Your task to perform on an android device: set default search engine in the chrome app Image 0: 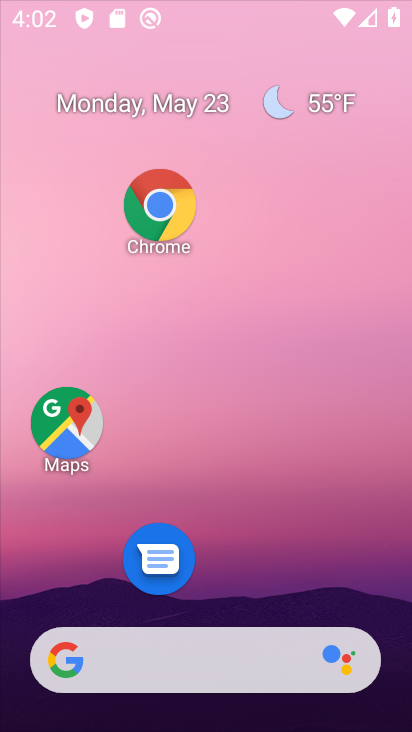
Step 0: click (111, 77)
Your task to perform on an android device: set default search engine in the chrome app Image 1: 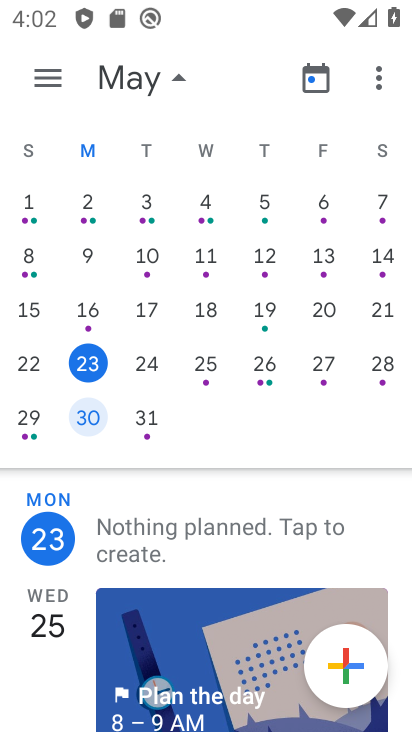
Step 1: press back button
Your task to perform on an android device: set default search engine in the chrome app Image 2: 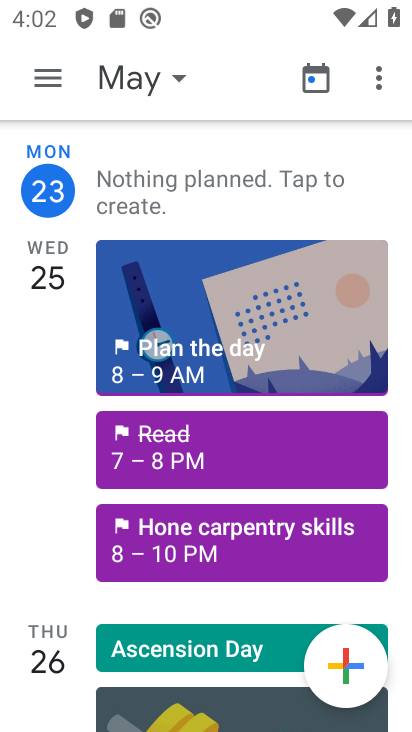
Step 2: press home button
Your task to perform on an android device: set default search engine in the chrome app Image 3: 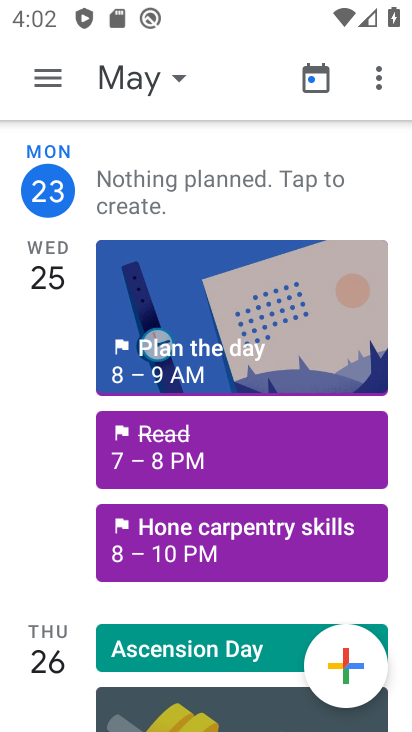
Step 3: press home button
Your task to perform on an android device: set default search engine in the chrome app Image 4: 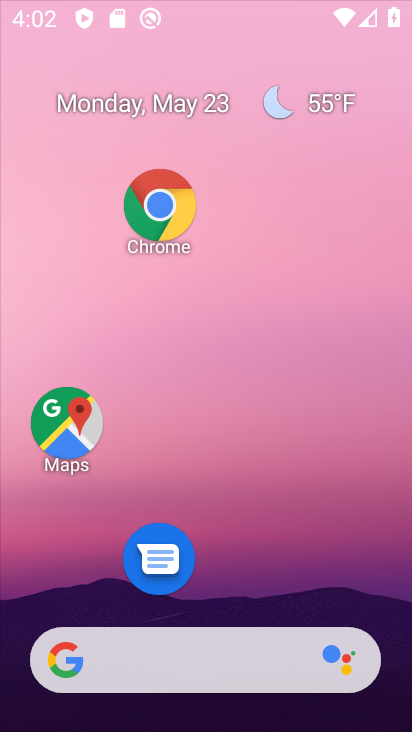
Step 4: press home button
Your task to perform on an android device: set default search engine in the chrome app Image 5: 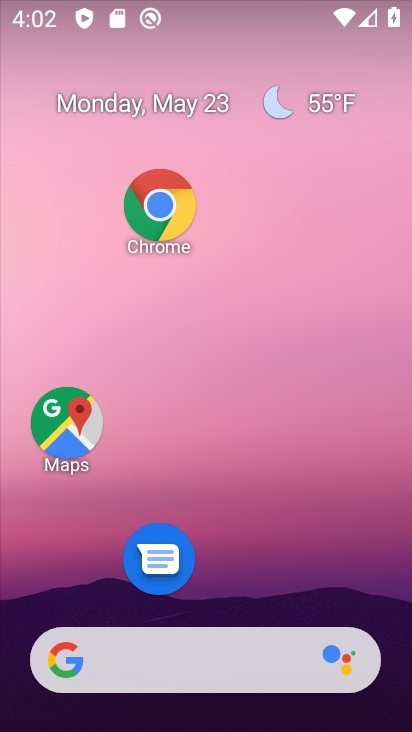
Step 5: drag from (288, 686) to (120, 48)
Your task to perform on an android device: set default search engine in the chrome app Image 6: 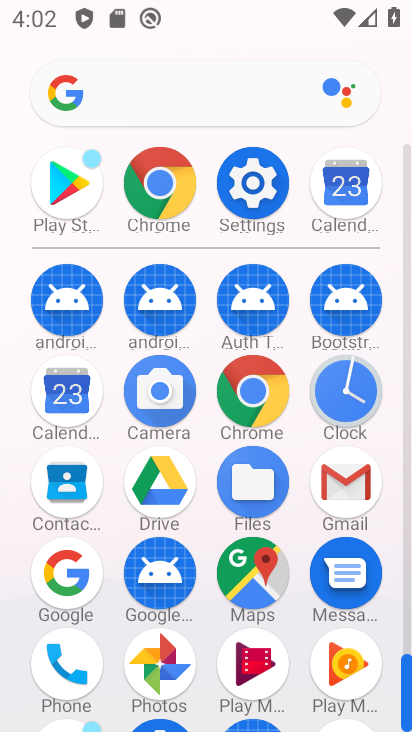
Step 6: click (158, 176)
Your task to perform on an android device: set default search engine in the chrome app Image 7: 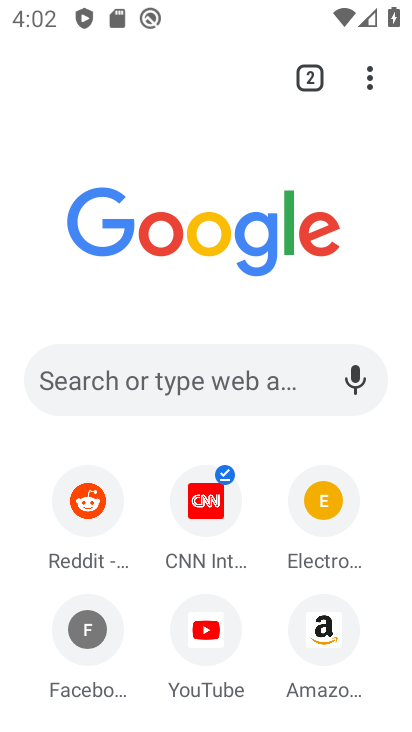
Step 7: drag from (369, 84) to (81, 614)
Your task to perform on an android device: set default search engine in the chrome app Image 8: 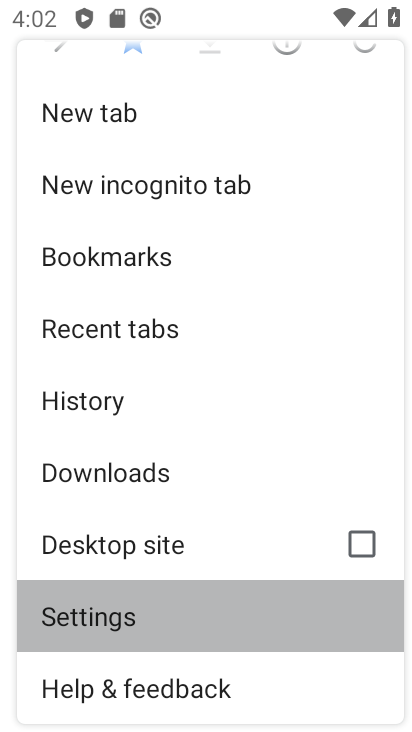
Step 8: click (81, 614)
Your task to perform on an android device: set default search engine in the chrome app Image 9: 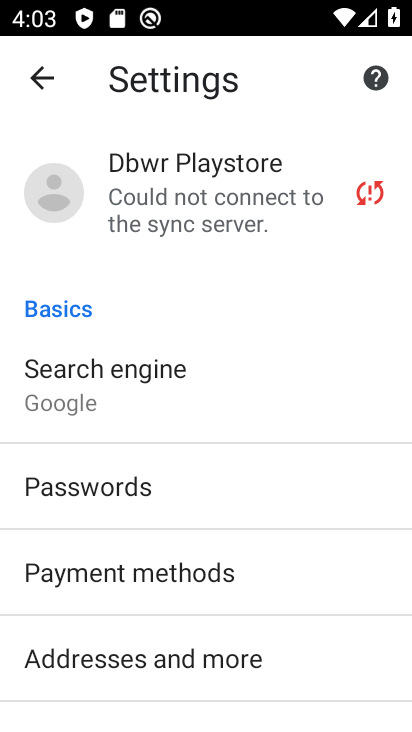
Step 9: drag from (125, 610) to (159, 169)
Your task to perform on an android device: set default search engine in the chrome app Image 10: 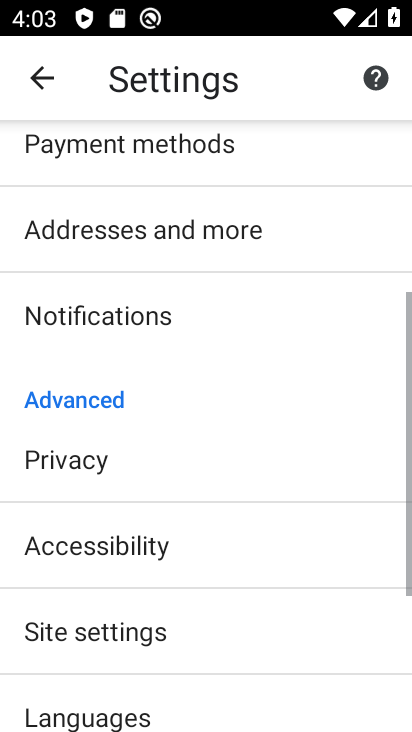
Step 10: drag from (209, 449) to (210, 216)
Your task to perform on an android device: set default search engine in the chrome app Image 11: 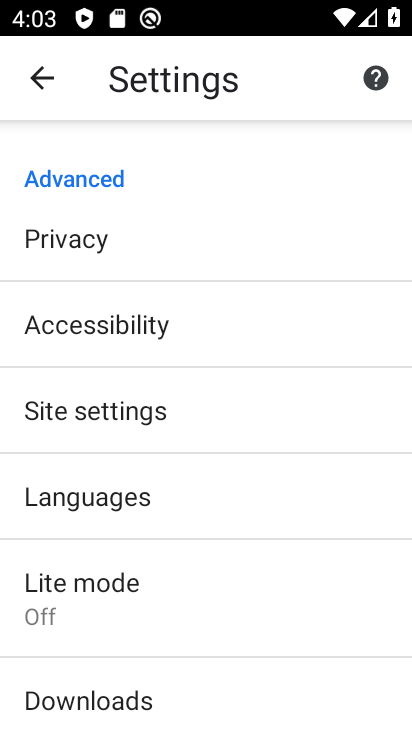
Step 11: click (85, 408)
Your task to perform on an android device: set default search engine in the chrome app Image 12: 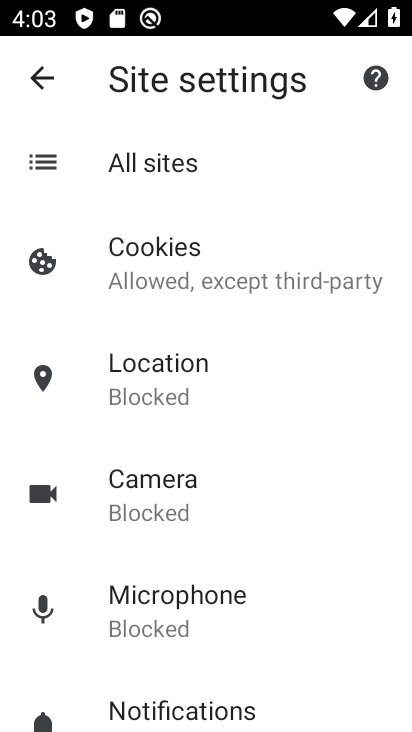
Step 12: click (33, 77)
Your task to perform on an android device: set default search engine in the chrome app Image 13: 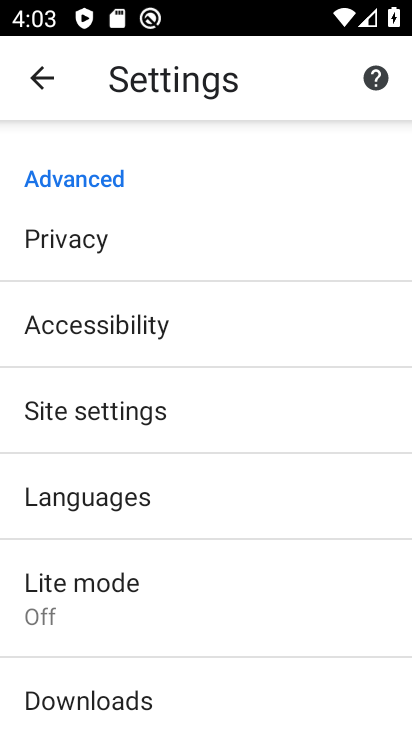
Step 13: drag from (76, 232) to (121, 565)
Your task to perform on an android device: set default search engine in the chrome app Image 14: 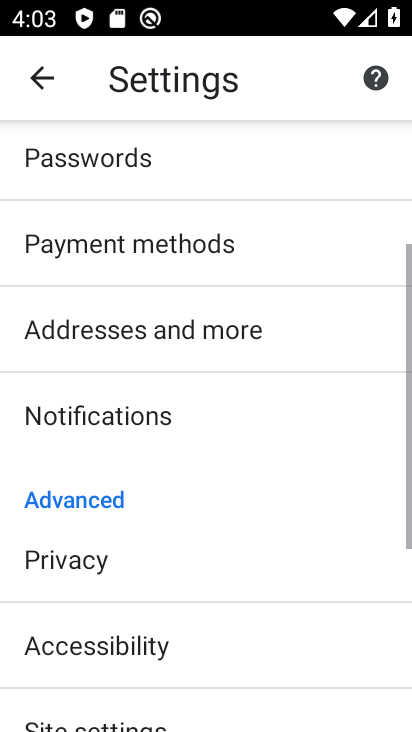
Step 14: drag from (116, 245) to (168, 547)
Your task to perform on an android device: set default search engine in the chrome app Image 15: 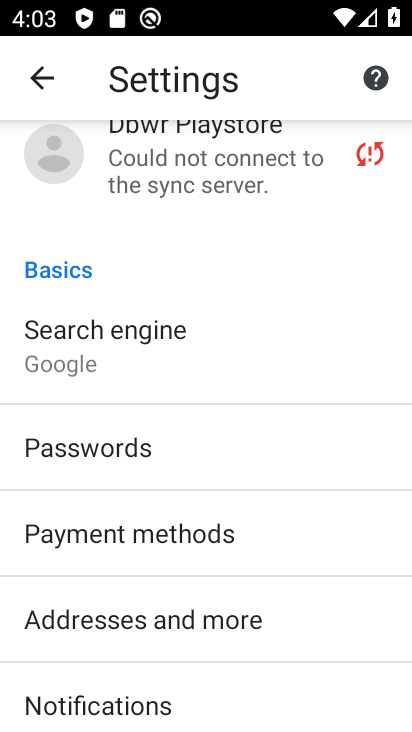
Step 15: click (75, 333)
Your task to perform on an android device: set default search engine in the chrome app Image 16: 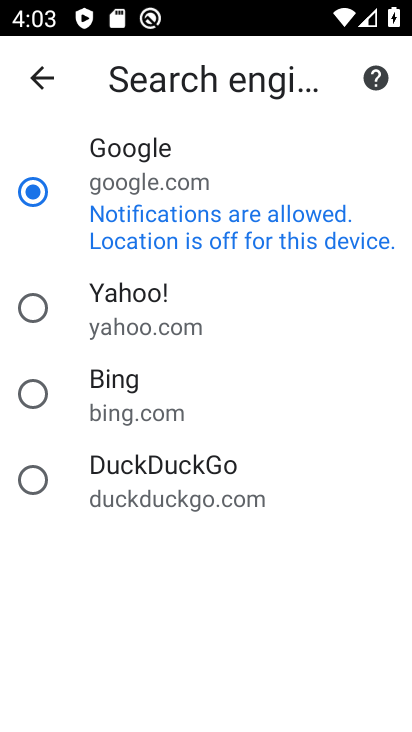
Step 16: click (33, 300)
Your task to perform on an android device: set default search engine in the chrome app Image 17: 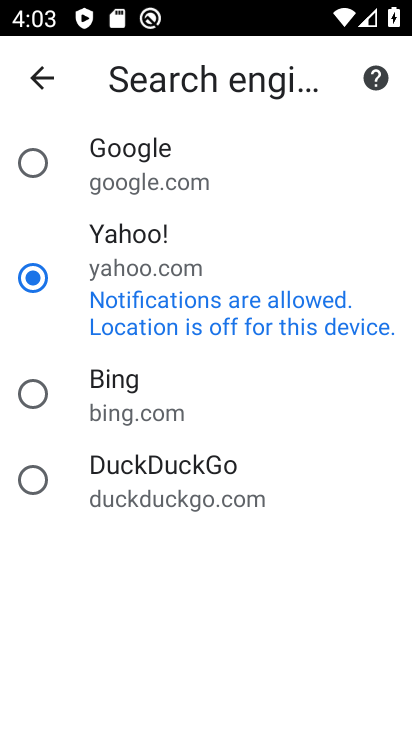
Step 17: click (35, 164)
Your task to perform on an android device: set default search engine in the chrome app Image 18: 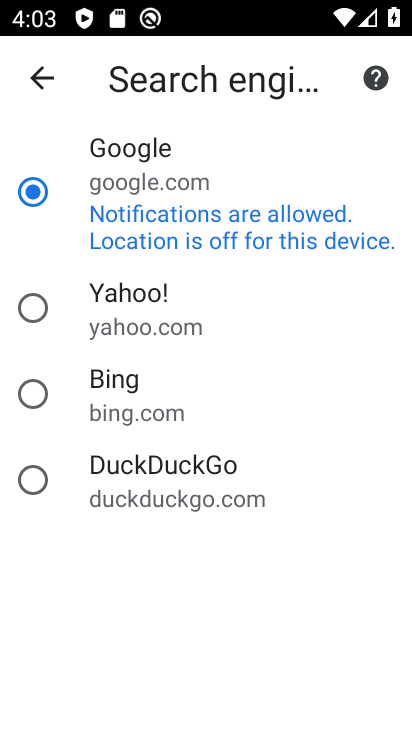
Step 18: task complete